Your task to perform on an android device: Open settings on Google Maps Image 0: 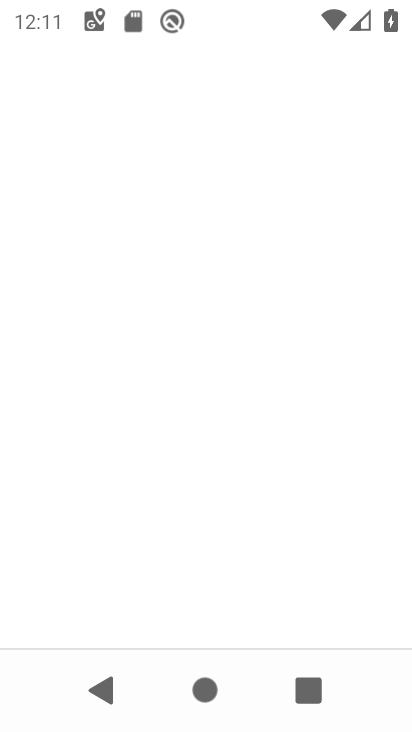
Step 0: drag from (335, 478) to (343, 58)
Your task to perform on an android device: Open settings on Google Maps Image 1: 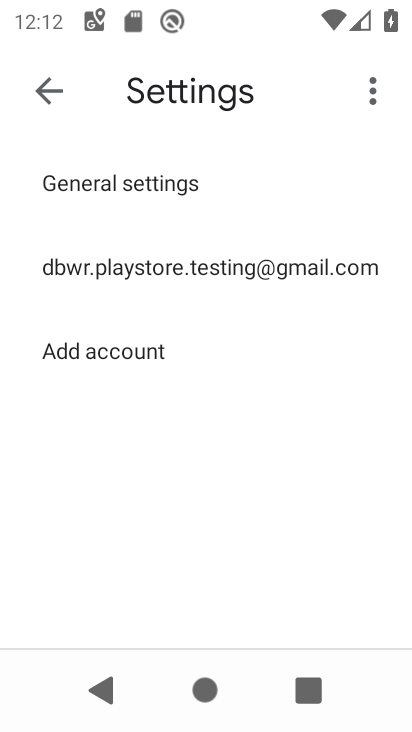
Step 1: press home button
Your task to perform on an android device: Open settings on Google Maps Image 2: 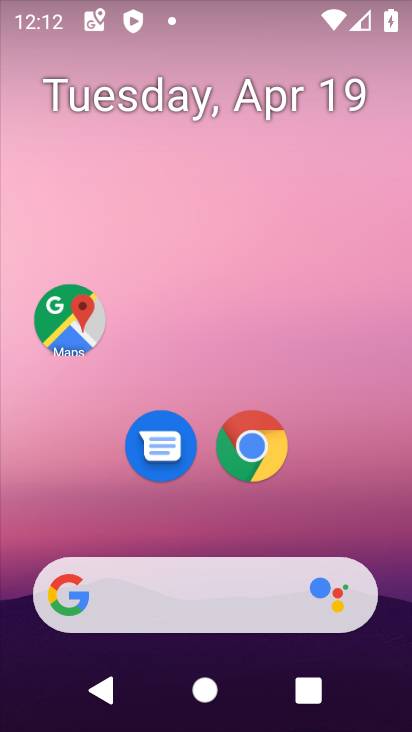
Step 2: click (66, 331)
Your task to perform on an android device: Open settings on Google Maps Image 3: 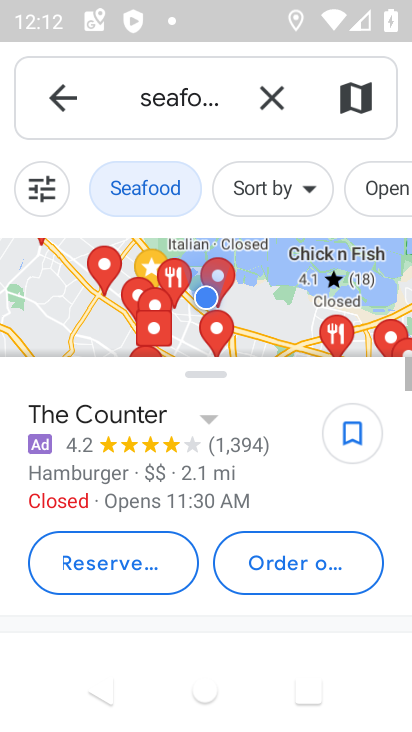
Step 3: click (55, 98)
Your task to perform on an android device: Open settings on Google Maps Image 4: 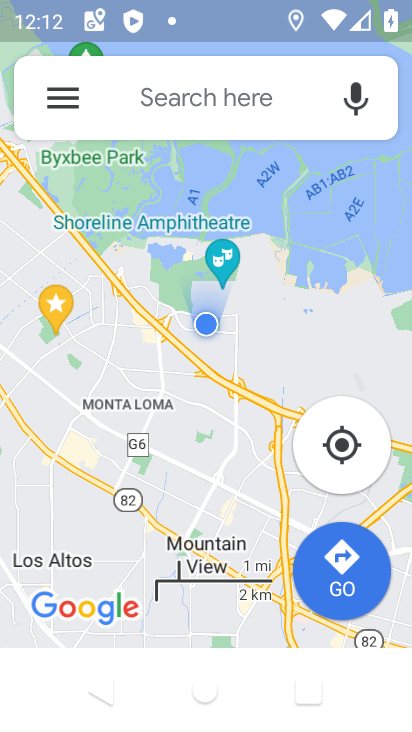
Step 4: click (58, 98)
Your task to perform on an android device: Open settings on Google Maps Image 5: 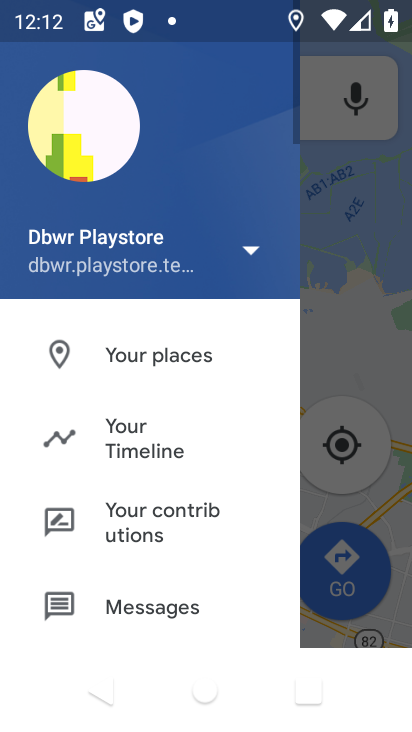
Step 5: drag from (176, 555) to (213, 182)
Your task to perform on an android device: Open settings on Google Maps Image 6: 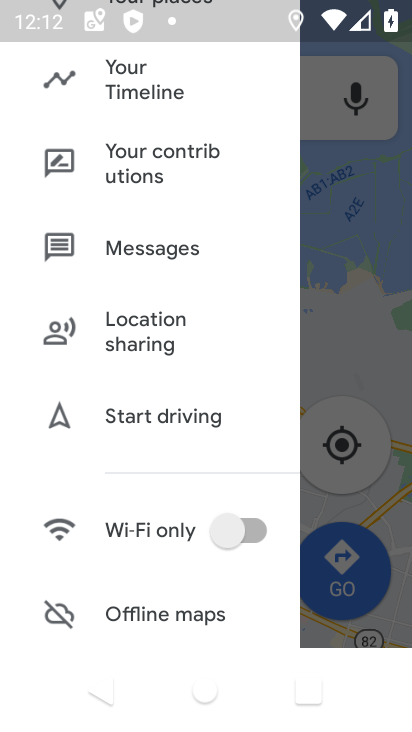
Step 6: drag from (177, 464) to (227, 180)
Your task to perform on an android device: Open settings on Google Maps Image 7: 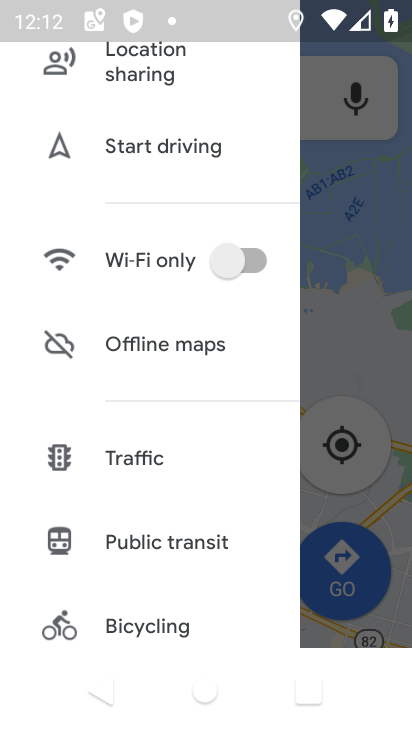
Step 7: drag from (177, 533) to (206, 191)
Your task to perform on an android device: Open settings on Google Maps Image 8: 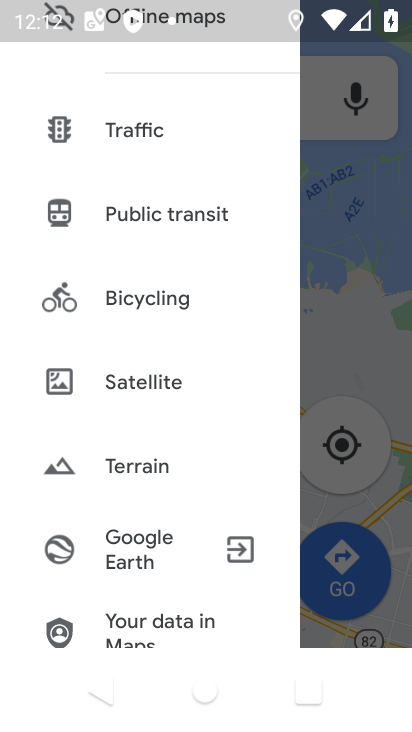
Step 8: drag from (178, 465) to (199, 116)
Your task to perform on an android device: Open settings on Google Maps Image 9: 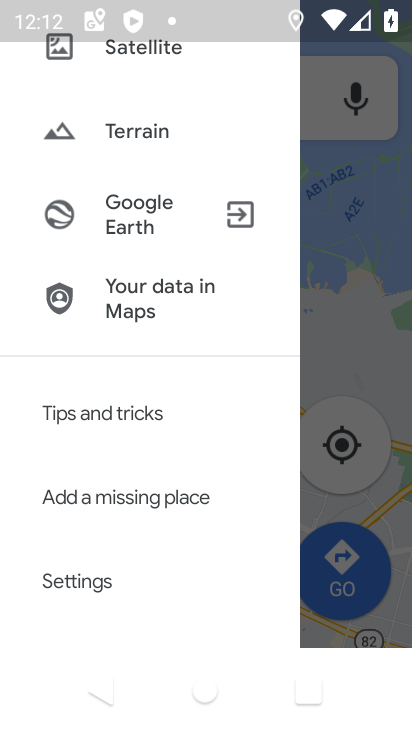
Step 9: click (105, 575)
Your task to perform on an android device: Open settings on Google Maps Image 10: 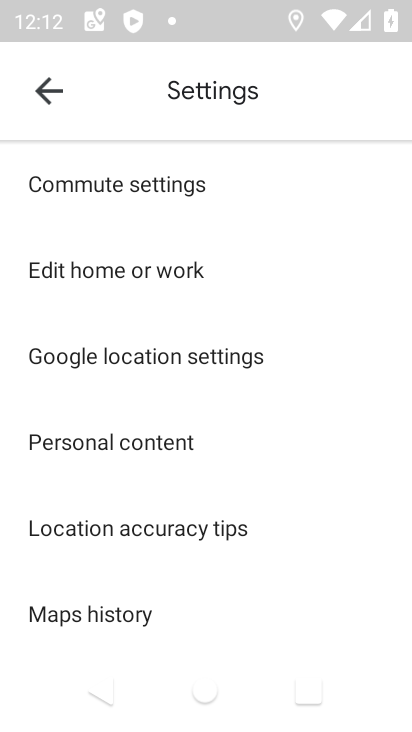
Step 10: task complete